Your task to perform on an android device: change timer sound Image 0: 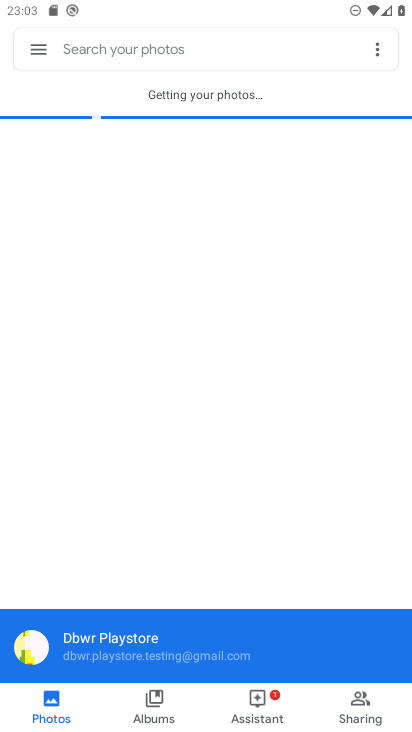
Step 0: drag from (243, 654) to (121, 197)
Your task to perform on an android device: change timer sound Image 1: 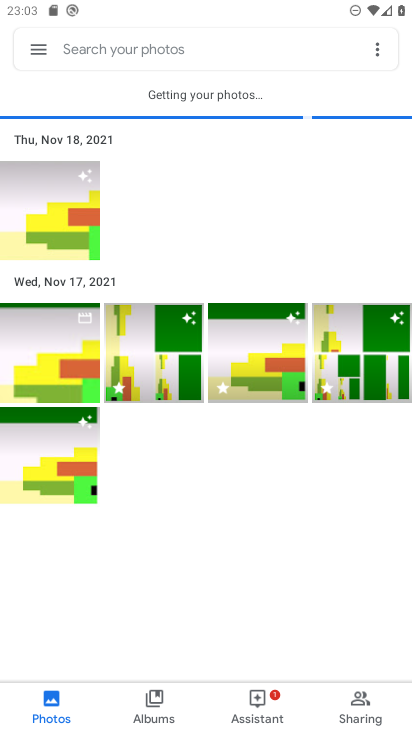
Step 1: press back button
Your task to perform on an android device: change timer sound Image 2: 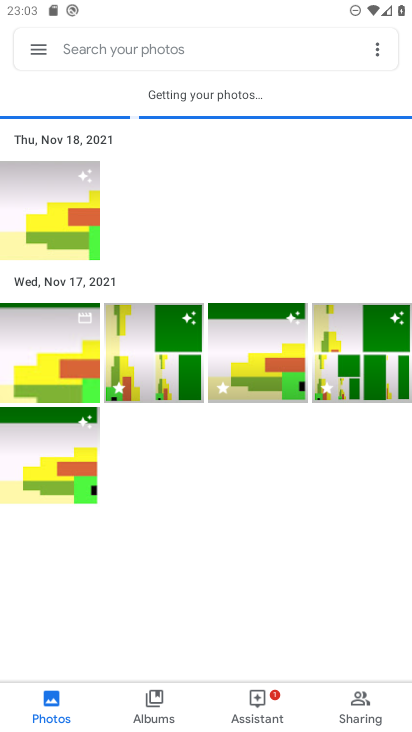
Step 2: press back button
Your task to perform on an android device: change timer sound Image 3: 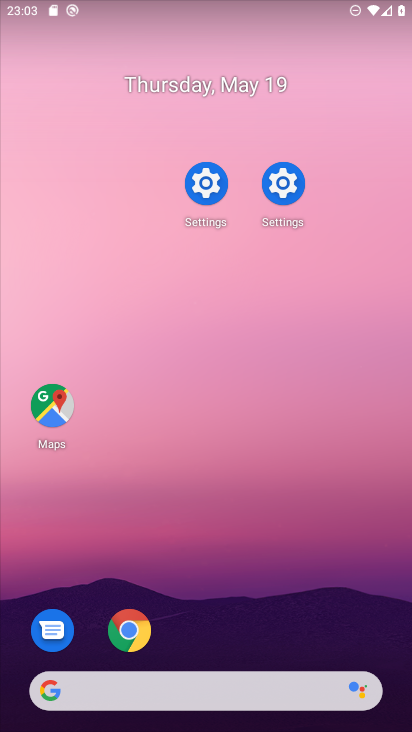
Step 3: drag from (259, 624) to (137, 167)
Your task to perform on an android device: change timer sound Image 4: 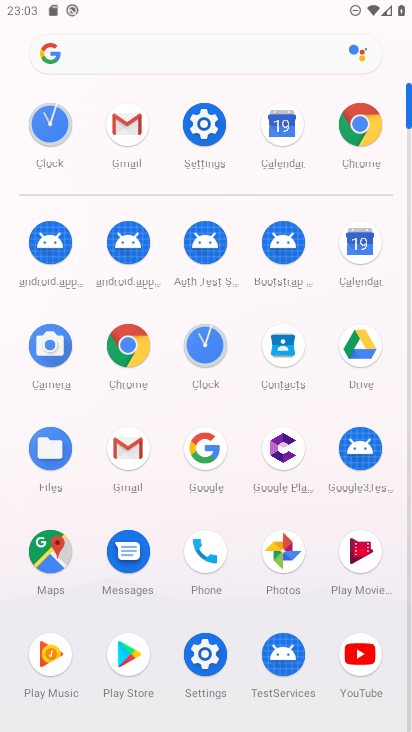
Step 4: click (205, 351)
Your task to perform on an android device: change timer sound Image 5: 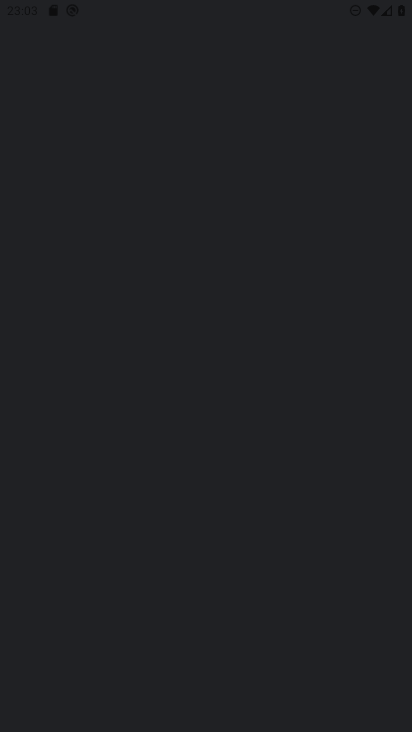
Step 5: click (205, 351)
Your task to perform on an android device: change timer sound Image 6: 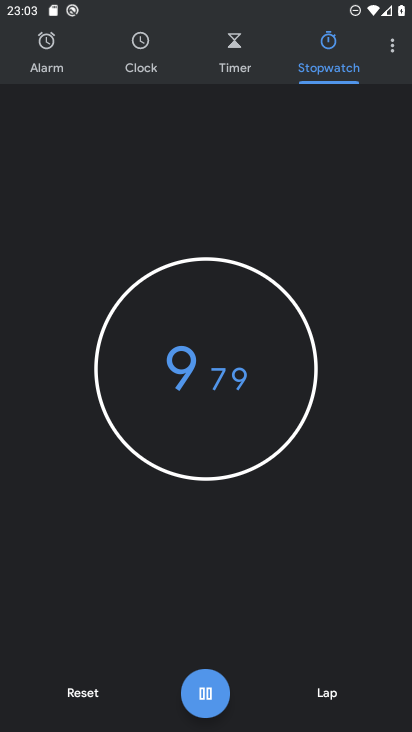
Step 6: click (199, 687)
Your task to perform on an android device: change timer sound Image 7: 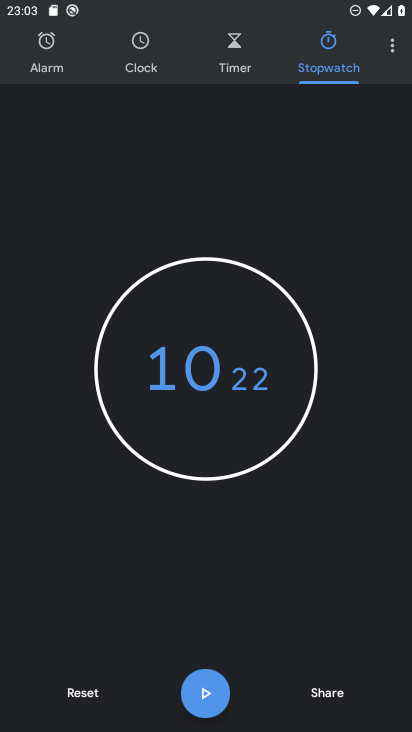
Step 7: click (235, 42)
Your task to perform on an android device: change timer sound Image 8: 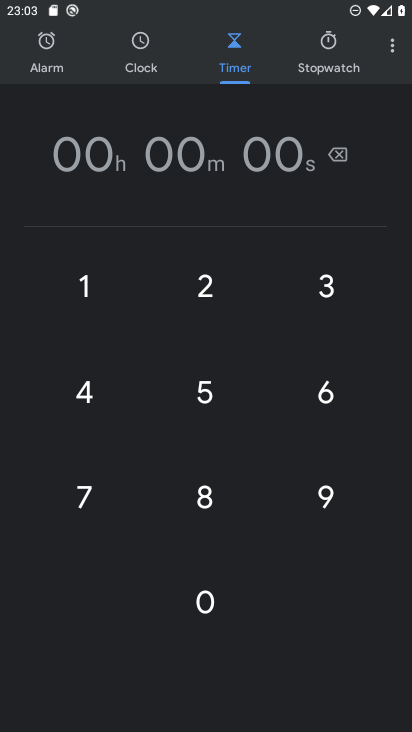
Step 8: click (187, 391)
Your task to perform on an android device: change timer sound Image 9: 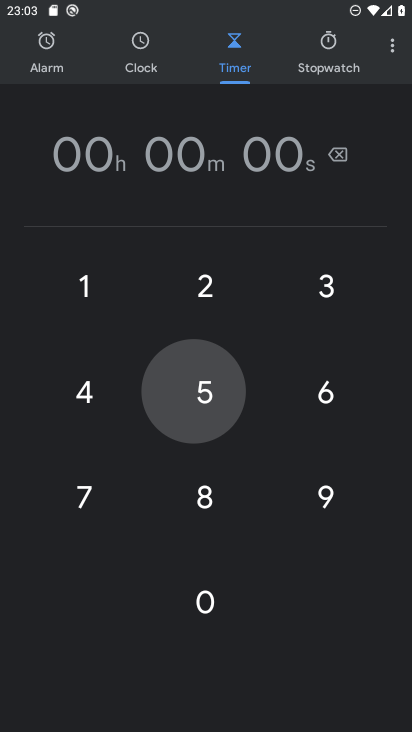
Step 9: click (189, 390)
Your task to perform on an android device: change timer sound Image 10: 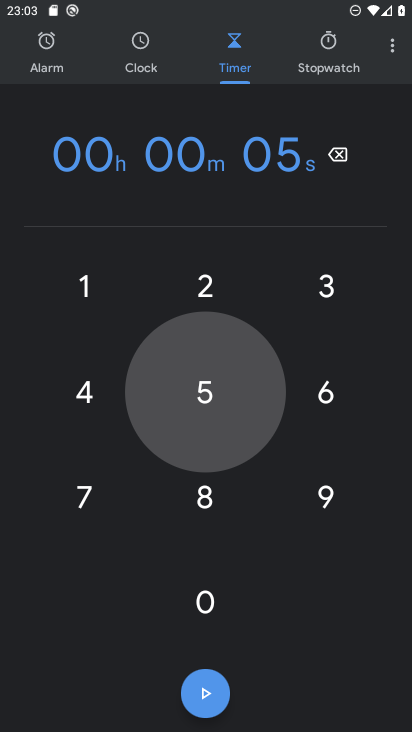
Step 10: click (192, 389)
Your task to perform on an android device: change timer sound Image 11: 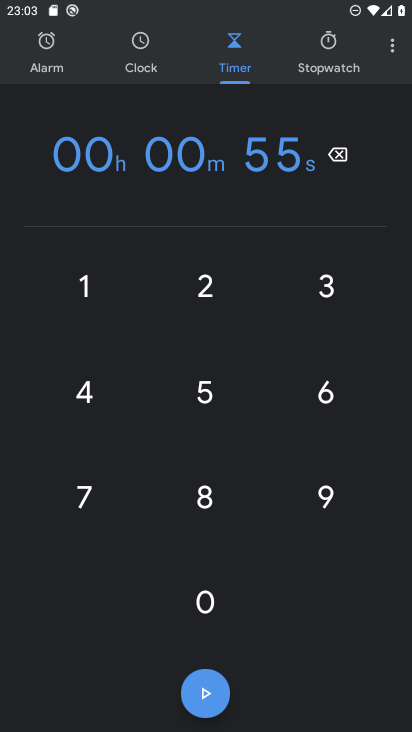
Step 11: click (193, 389)
Your task to perform on an android device: change timer sound Image 12: 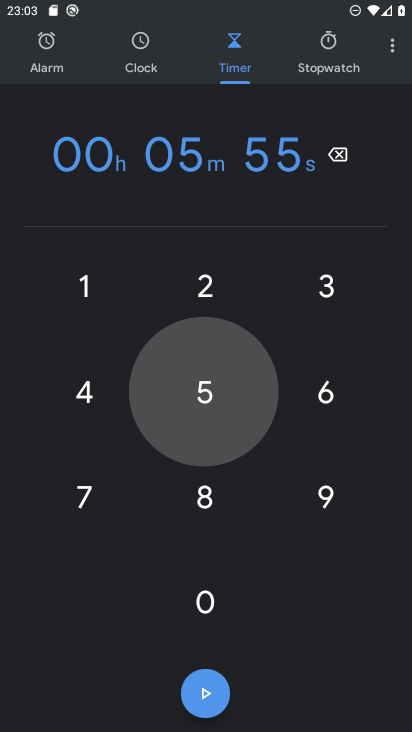
Step 12: click (193, 388)
Your task to perform on an android device: change timer sound Image 13: 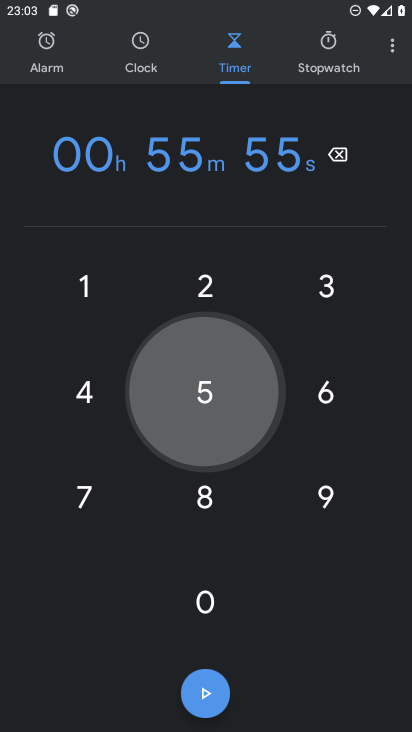
Step 13: click (193, 388)
Your task to perform on an android device: change timer sound Image 14: 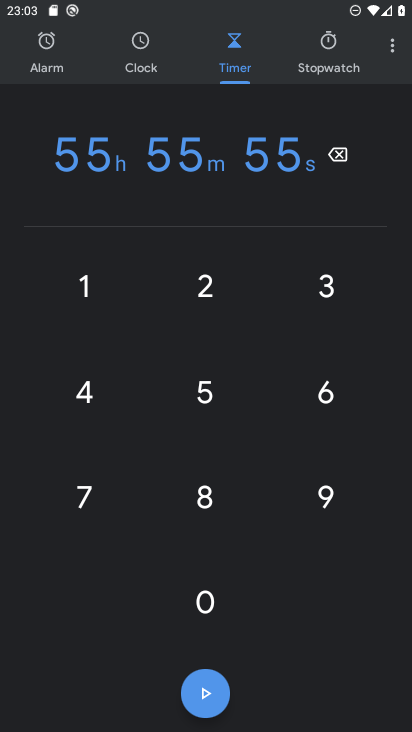
Step 14: click (206, 696)
Your task to perform on an android device: change timer sound Image 15: 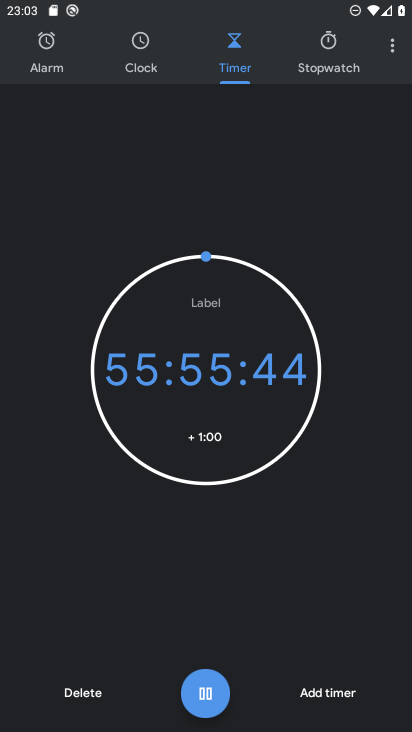
Step 15: click (201, 693)
Your task to perform on an android device: change timer sound Image 16: 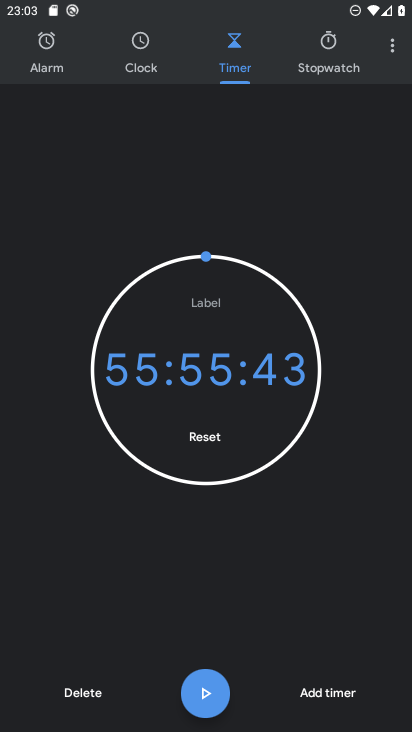
Step 16: click (327, 690)
Your task to perform on an android device: change timer sound Image 17: 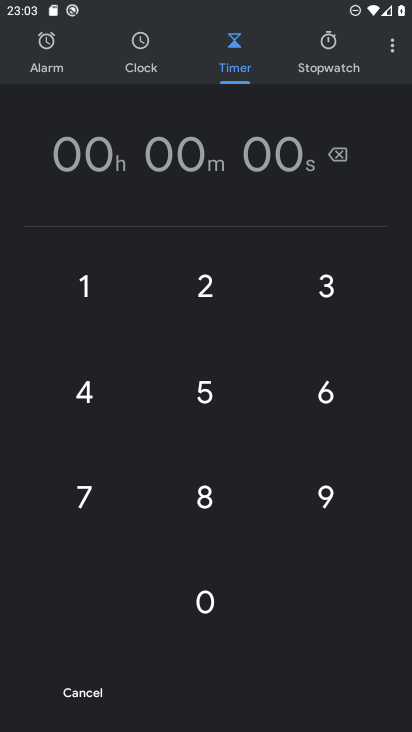
Step 17: task complete